Your task to perform on an android device: snooze an email in the gmail app Image 0: 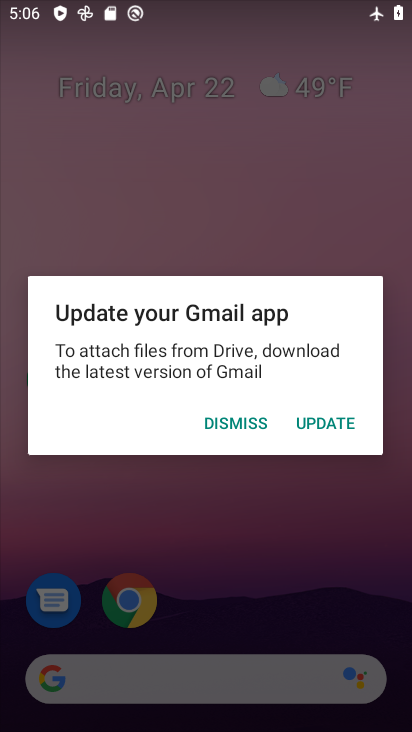
Step 0: press home button
Your task to perform on an android device: snooze an email in the gmail app Image 1: 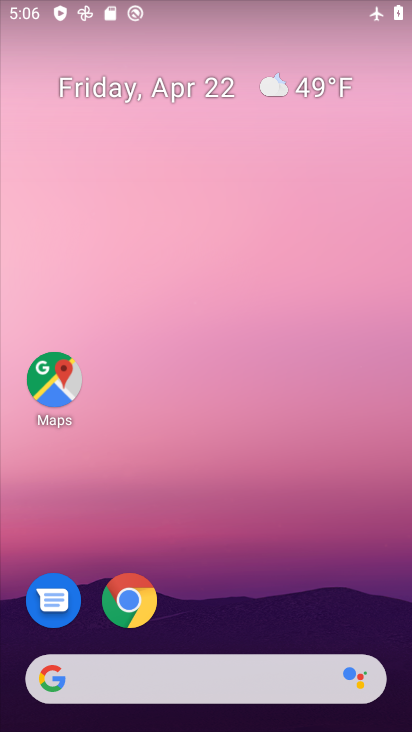
Step 1: drag from (208, 513) to (230, 42)
Your task to perform on an android device: snooze an email in the gmail app Image 2: 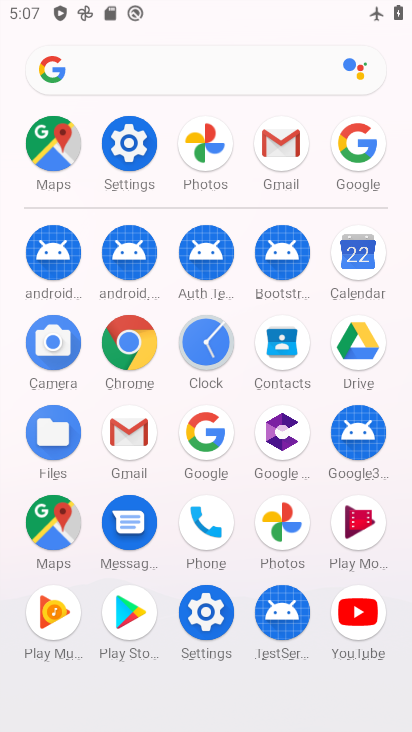
Step 2: click (279, 141)
Your task to perform on an android device: snooze an email in the gmail app Image 3: 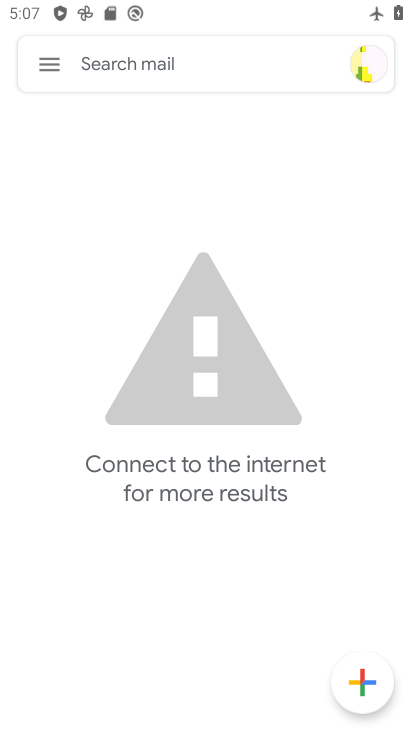
Step 3: click (44, 62)
Your task to perform on an android device: snooze an email in the gmail app Image 4: 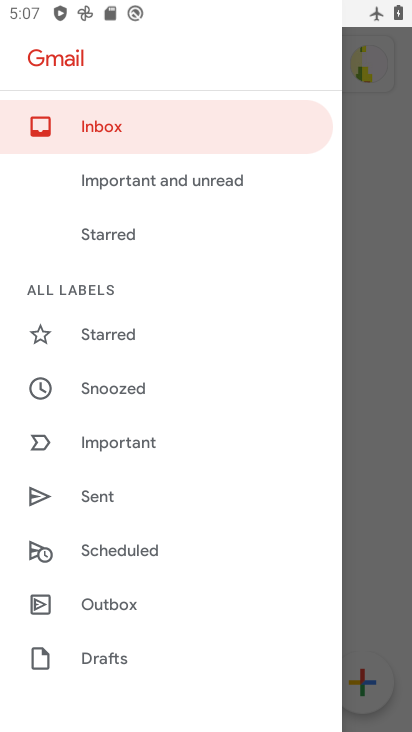
Step 4: task complete